Your task to perform on an android device: What's on my calendar tomorrow? Image 0: 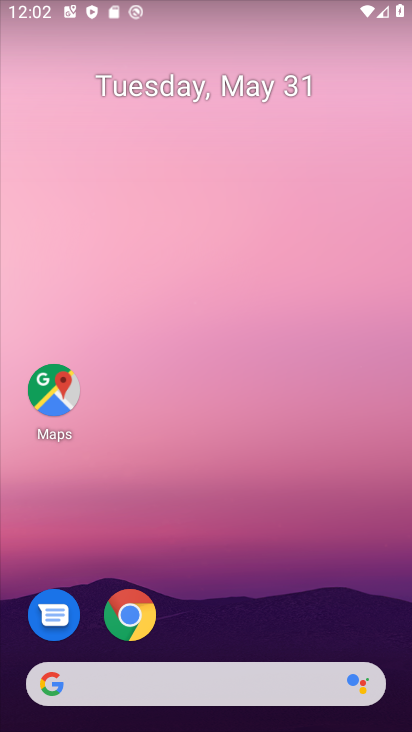
Step 0: drag from (364, 640) to (379, 239)
Your task to perform on an android device: What's on my calendar tomorrow? Image 1: 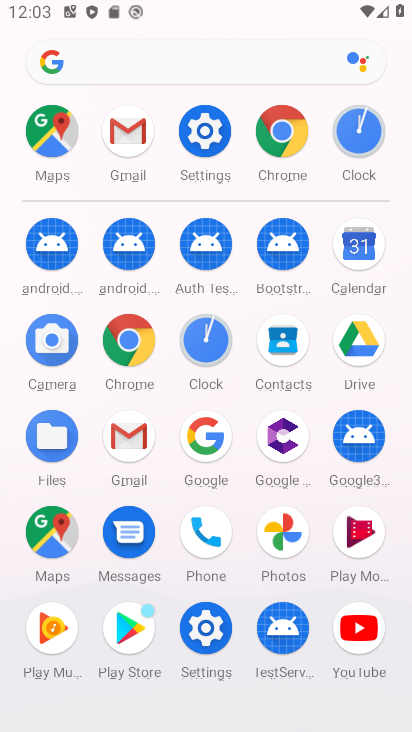
Step 1: click (351, 259)
Your task to perform on an android device: What's on my calendar tomorrow? Image 2: 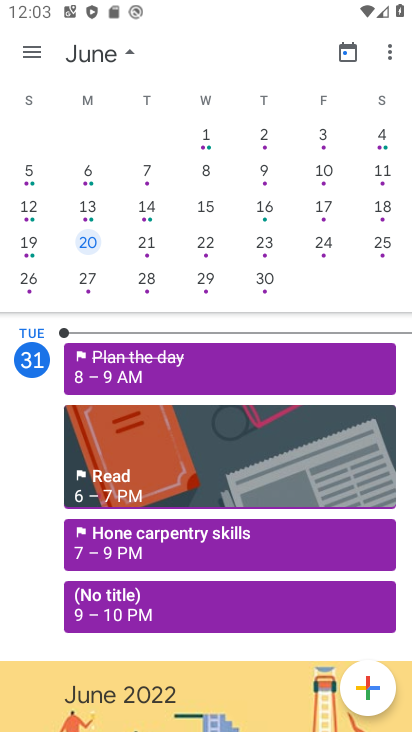
Step 2: click (205, 135)
Your task to perform on an android device: What's on my calendar tomorrow? Image 3: 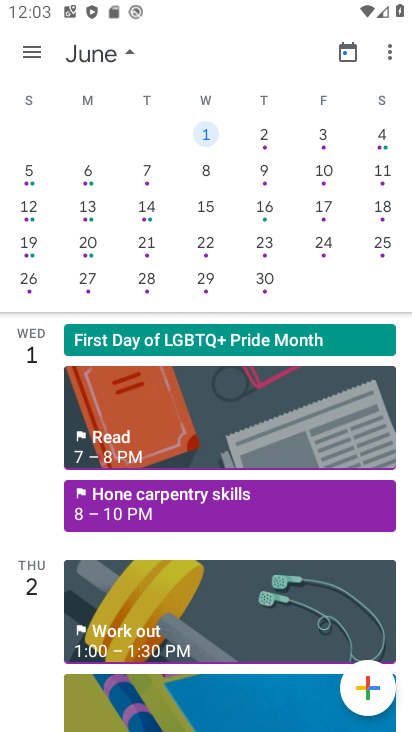
Step 3: task complete